Your task to perform on an android device: change your default location settings in chrome Image 0: 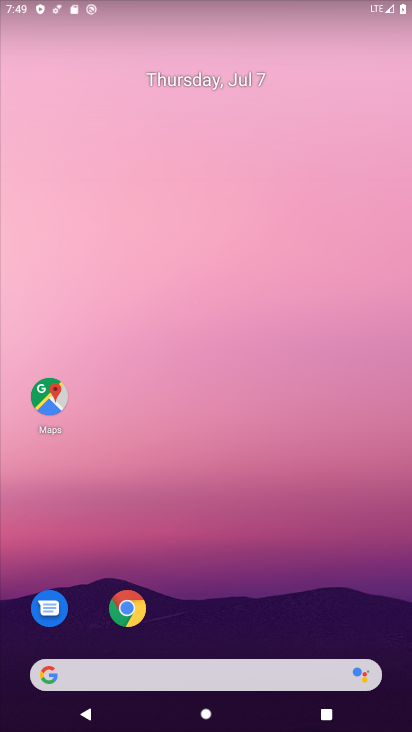
Step 0: click (127, 607)
Your task to perform on an android device: change your default location settings in chrome Image 1: 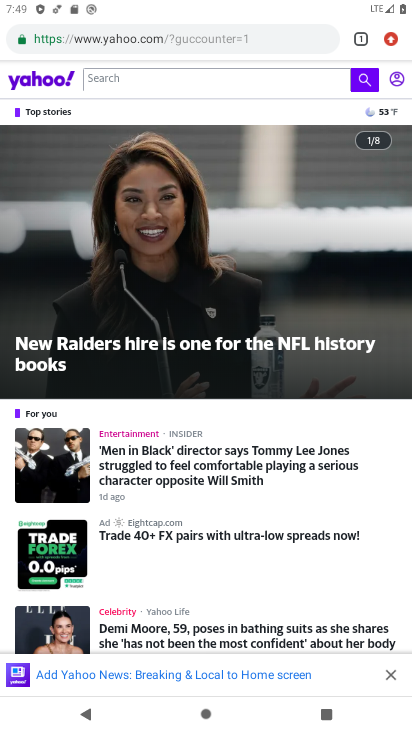
Step 1: click (392, 44)
Your task to perform on an android device: change your default location settings in chrome Image 2: 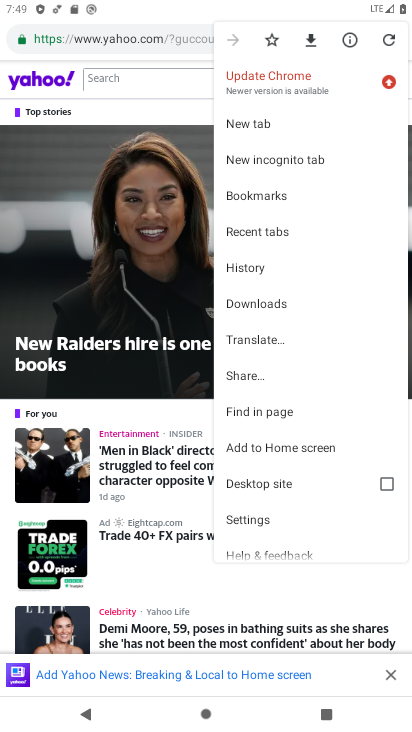
Step 2: click (256, 514)
Your task to perform on an android device: change your default location settings in chrome Image 3: 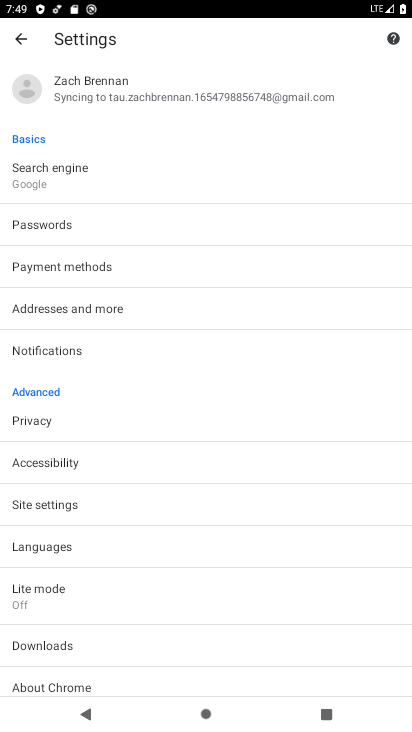
Step 3: click (44, 498)
Your task to perform on an android device: change your default location settings in chrome Image 4: 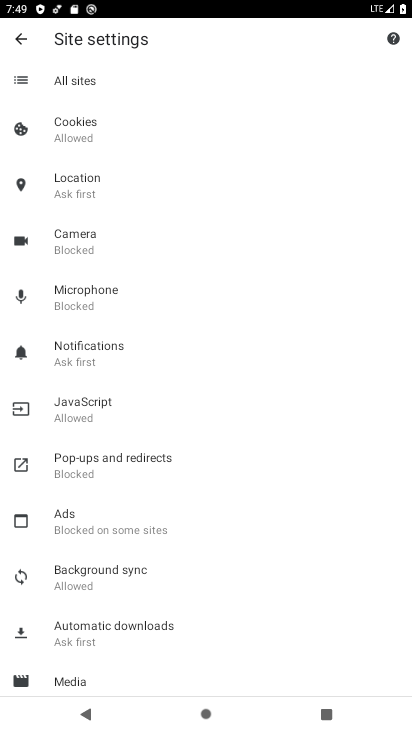
Step 4: click (70, 183)
Your task to perform on an android device: change your default location settings in chrome Image 5: 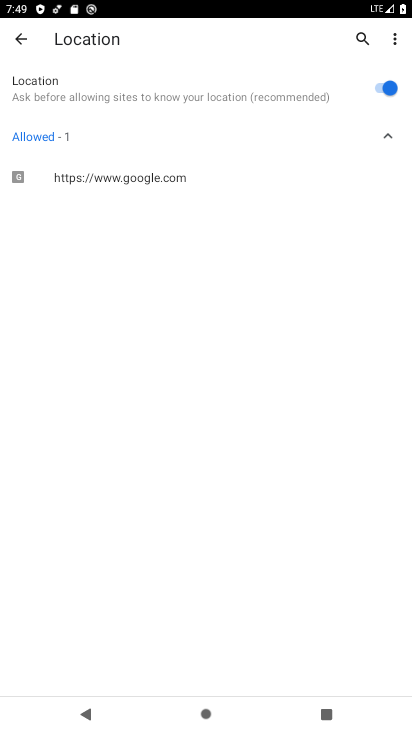
Step 5: click (377, 85)
Your task to perform on an android device: change your default location settings in chrome Image 6: 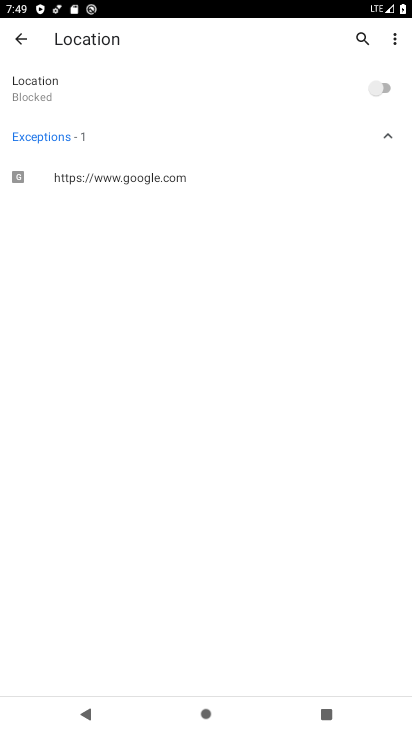
Step 6: task complete